Your task to perform on an android device: all mails in gmail Image 0: 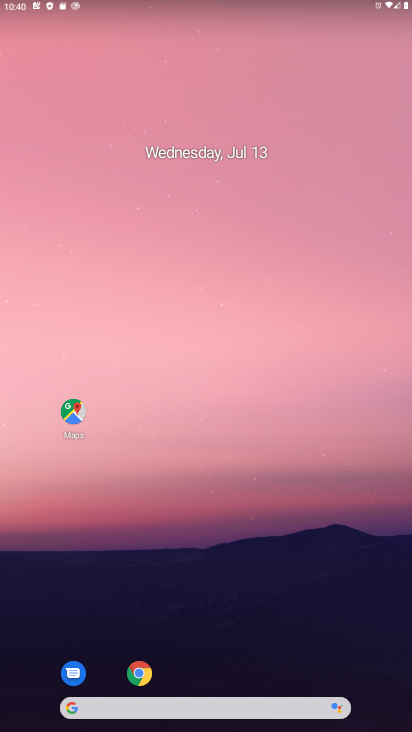
Step 0: drag from (239, 677) to (225, 187)
Your task to perform on an android device: all mails in gmail Image 1: 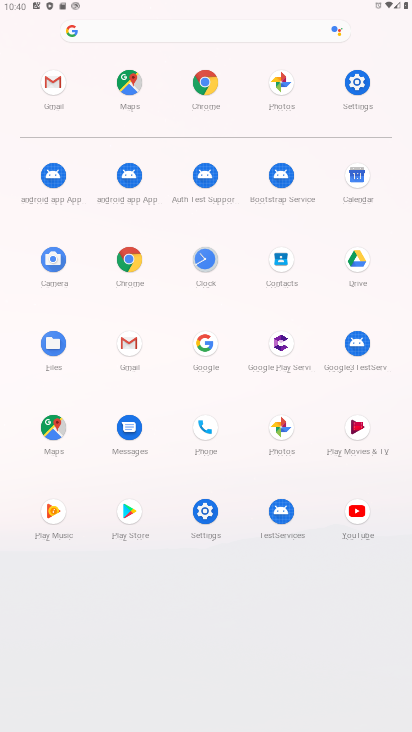
Step 1: click (53, 68)
Your task to perform on an android device: all mails in gmail Image 2: 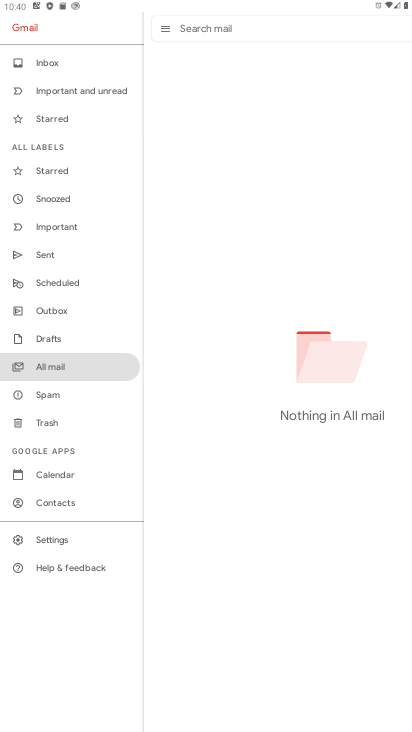
Step 2: task complete